Your task to perform on an android device: change keyboard looks Image 0: 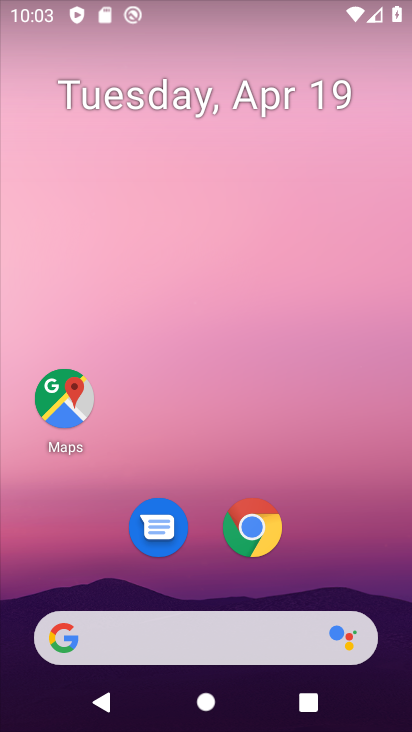
Step 0: drag from (22, 463) to (388, 428)
Your task to perform on an android device: change keyboard looks Image 1: 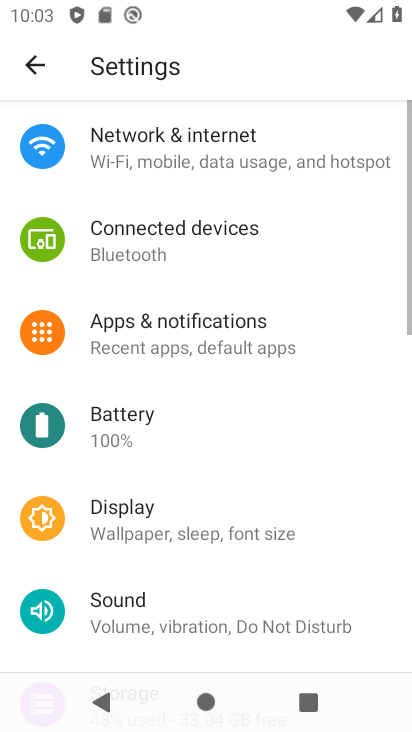
Step 1: drag from (160, 567) to (181, 138)
Your task to perform on an android device: change keyboard looks Image 2: 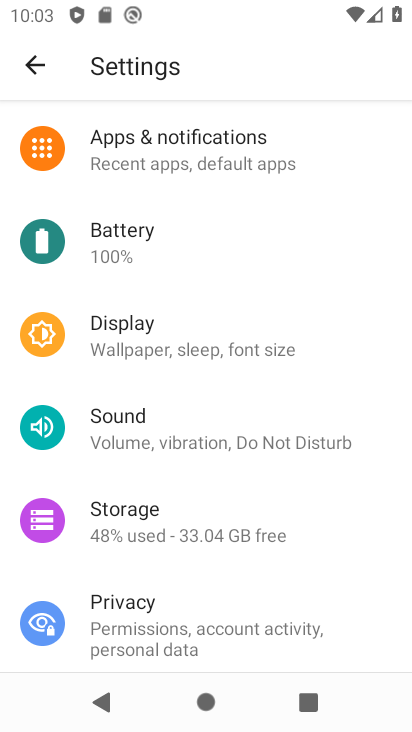
Step 2: drag from (152, 639) to (148, 233)
Your task to perform on an android device: change keyboard looks Image 3: 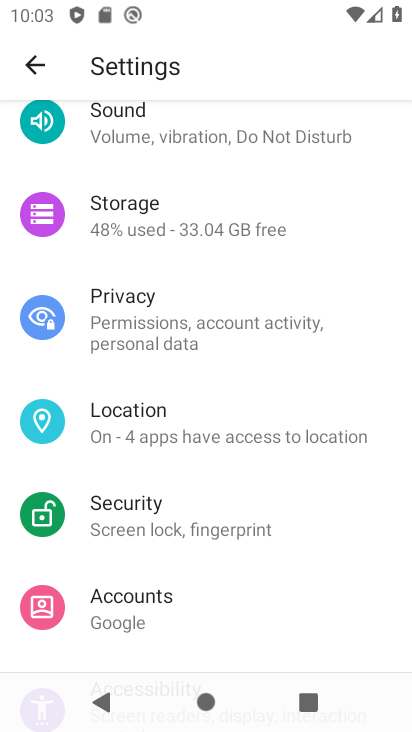
Step 3: drag from (191, 503) to (205, 271)
Your task to perform on an android device: change keyboard looks Image 4: 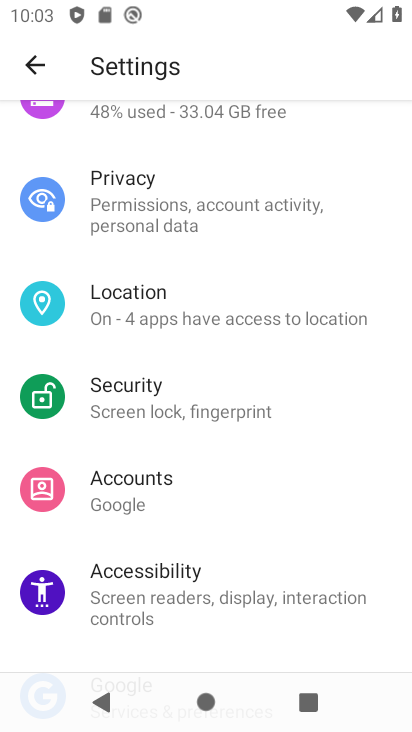
Step 4: drag from (213, 583) to (201, 216)
Your task to perform on an android device: change keyboard looks Image 5: 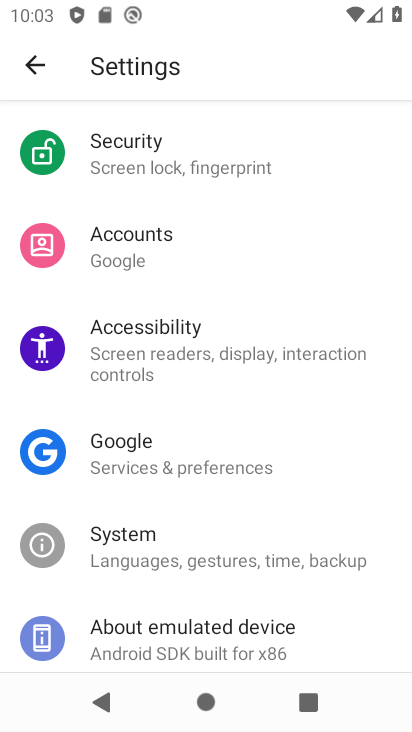
Step 5: click (190, 574)
Your task to perform on an android device: change keyboard looks Image 6: 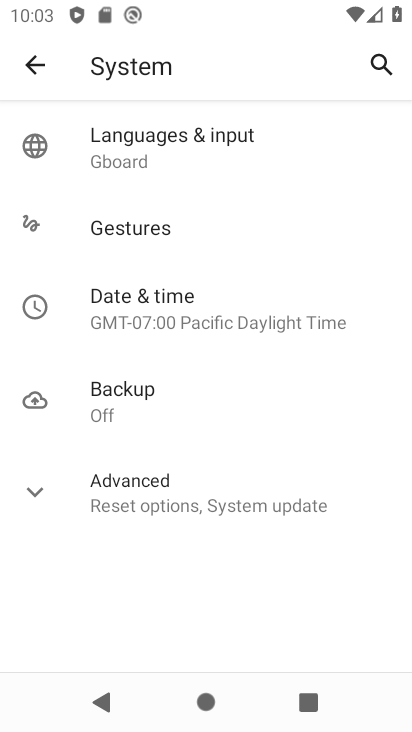
Step 6: click (135, 145)
Your task to perform on an android device: change keyboard looks Image 7: 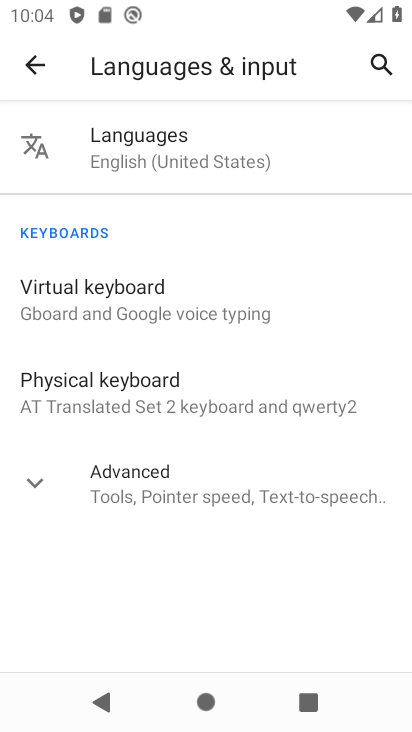
Step 7: click (116, 317)
Your task to perform on an android device: change keyboard looks Image 8: 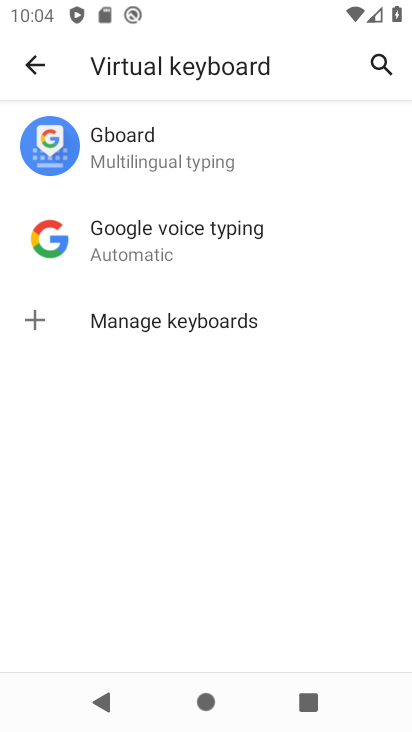
Step 8: click (169, 142)
Your task to perform on an android device: change keyboard looks Image 9: 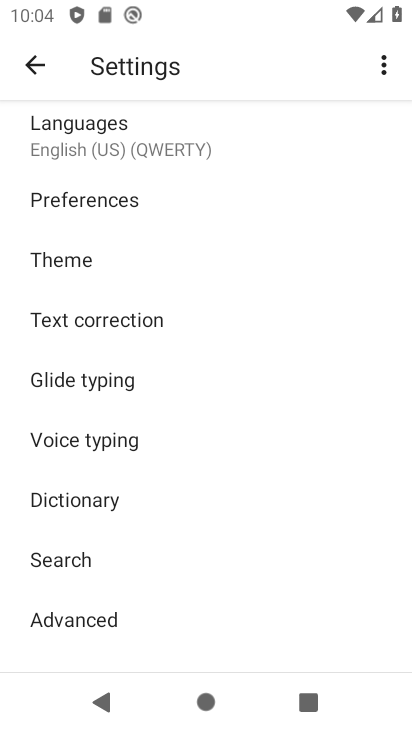
Step 9: drag from (149, 579) to (145, 218)
Your task to perform on an android device: change keyboard looks Image 10: 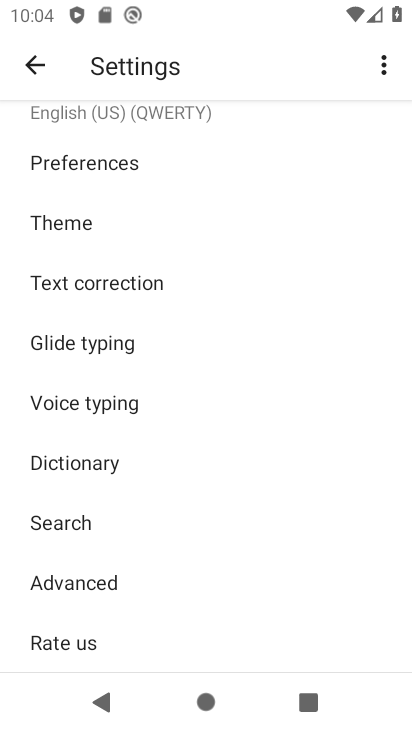
Step 10: drag from (181, 562) to (203, 609)
Your task to perform on an android device: change keyboard looks Image 11: 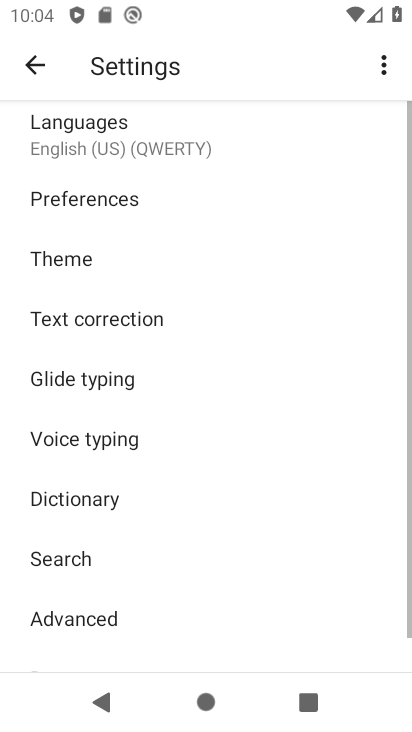
Step 11: click (109, 255)
Your task to perform on an android device: change keyboard looks Image 12: 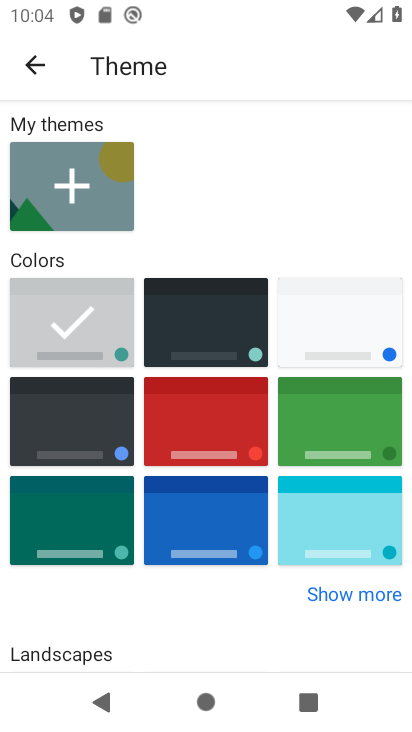
Step 12: click (208, 340)
Your task to perform on an android device: change keyboard looks Image 13: 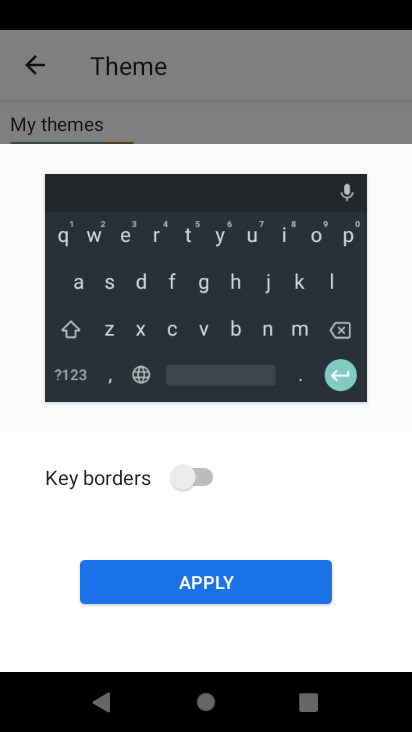
Step 13: click (199, 477)
Your task to perform on an android device: change keyboard looks Image 14: 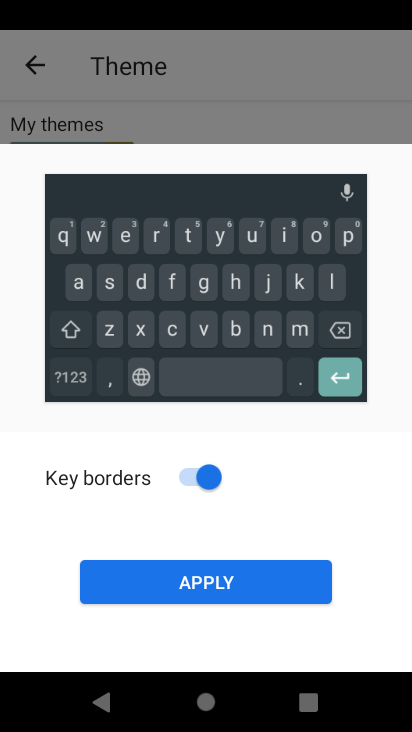
Step 14: click (228, 589)
Your task to perform on an android device: change keyboard looks Image 15: 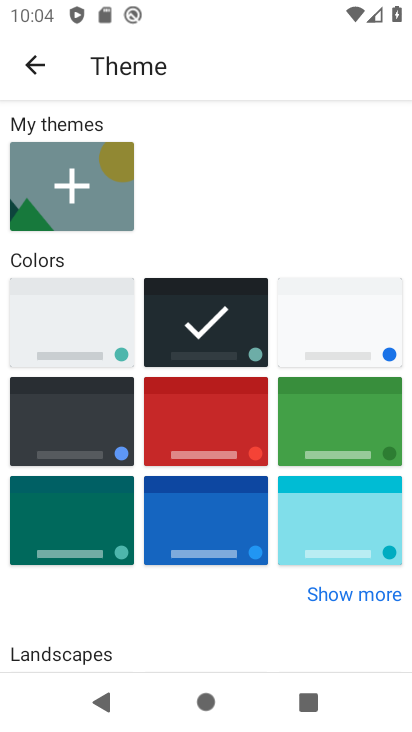
Step 15: task complete